Your task to perform on an android device: toggle wifi Image 0: 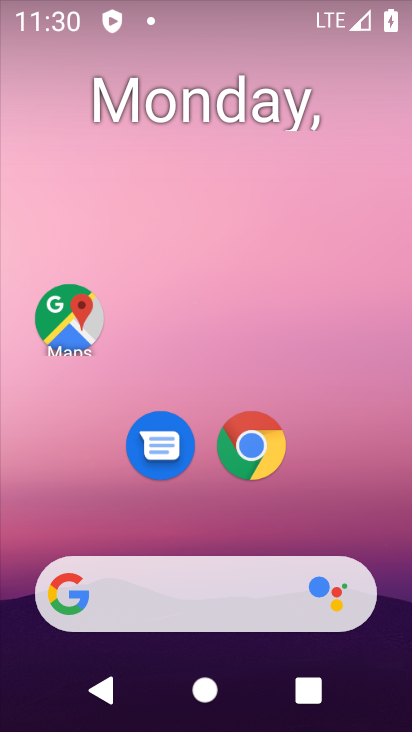
Step 0: drag from (78, 541) to (191, 164)
Your task to perform on an android device: toggle wifi Image 1: 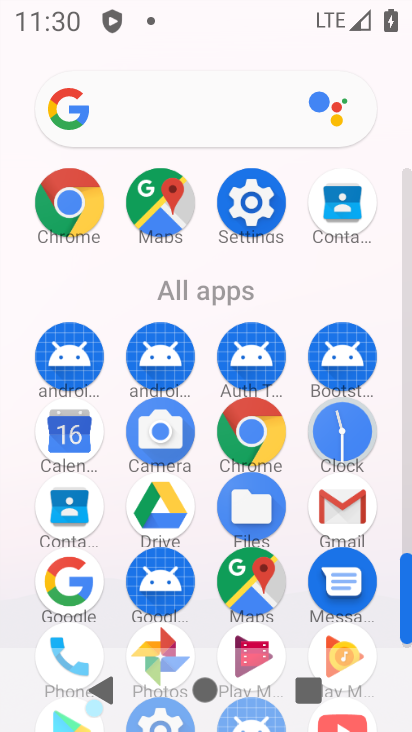
Step 1: drag from (191, 577) to (258, 375)
Your task to perform on an android device: toggle wifi Image 2: 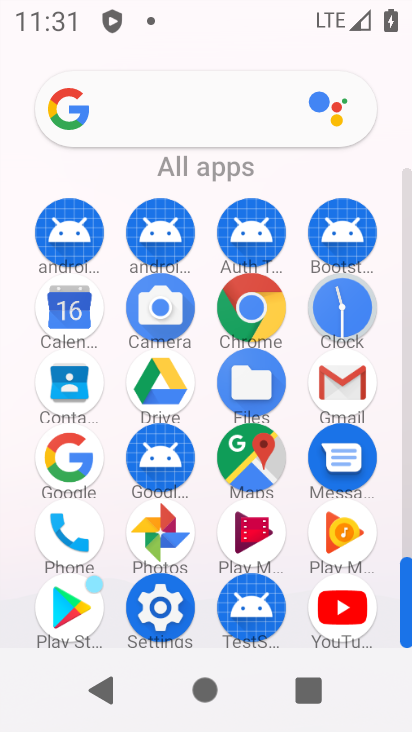
Step 2: click (166, 614)
Your task to perform on an android device: toggle wifi Image 3: 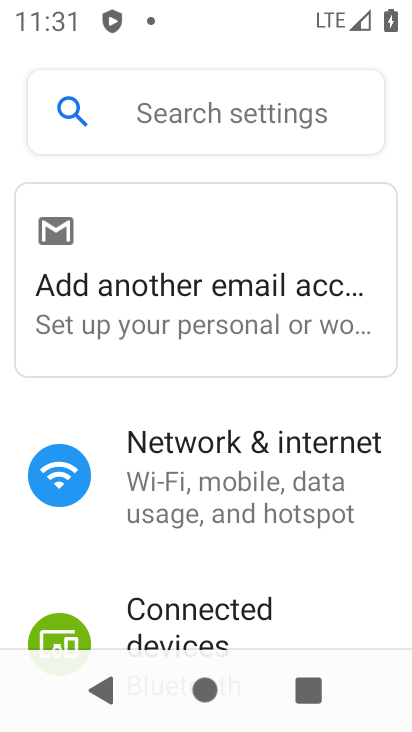
Step 3: click (247, 494)
Your task to perform on an android device: toggle wifi Image 4: 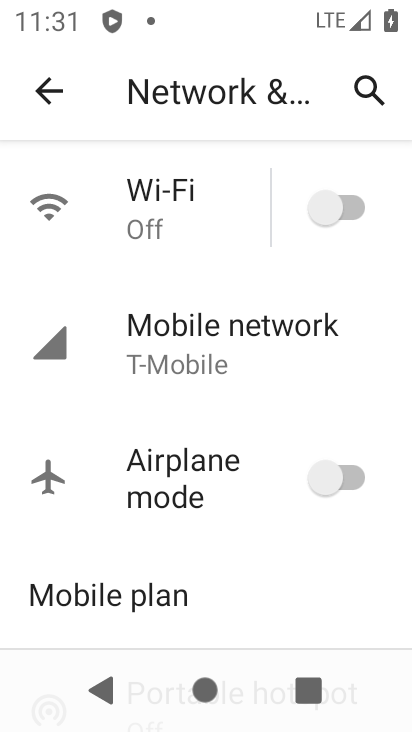
Step 4: click (363, 202)
Your task to perform on an android device: toggle wifi Image 5: 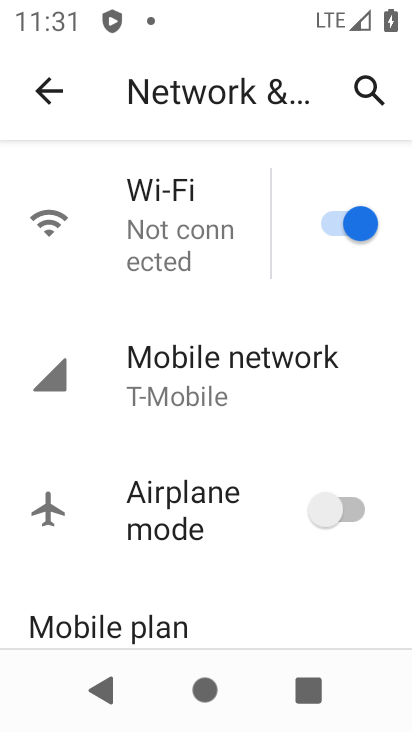
Step 5: task complete